Your task to perform on an android device: Go to Amazon Image 0: 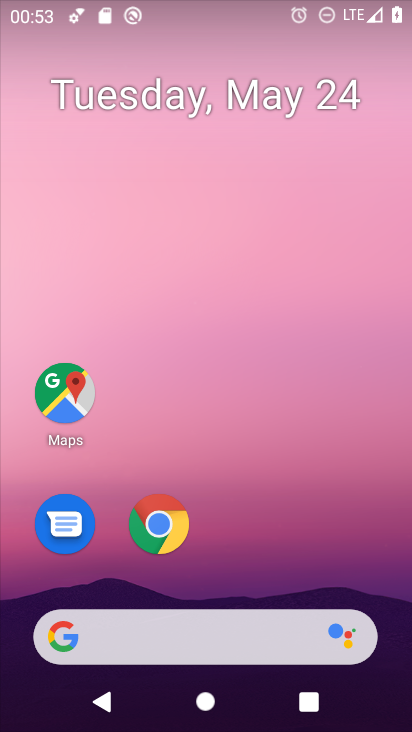
Step 0: click (136, 513)
Your task to perform on an android device: Go to Amazon Image 1: 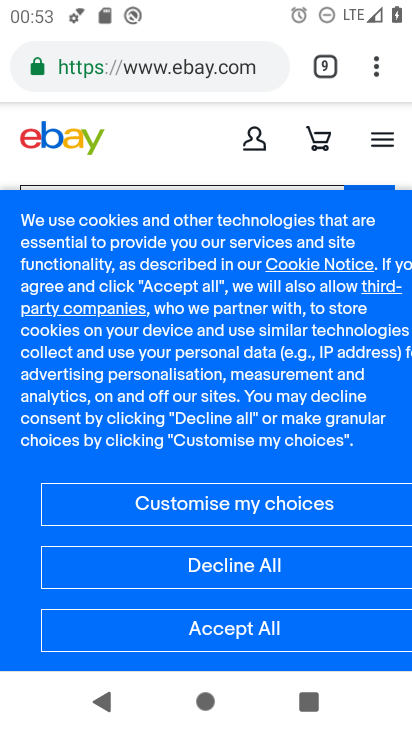
Step 1: click (328, 68)
Your task to perform on an android device: Go to Amazon Image 2: 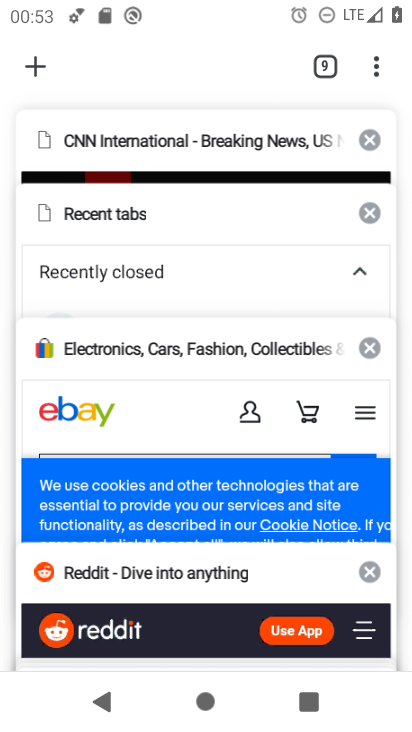
Step 2: drag from (127, 266) to (127, 538)
Your task to perform on an android device: Go to Amazon Image 3: 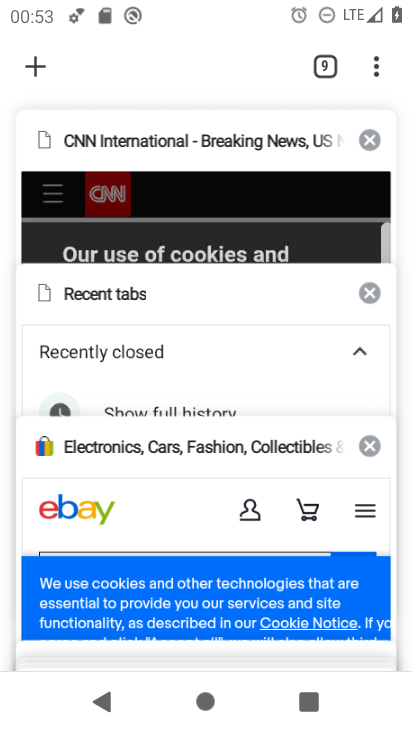
Step 3: drag from (95, 208) to (96, 515)
Your task to perform on an android device: Go to Amazon Image 4: 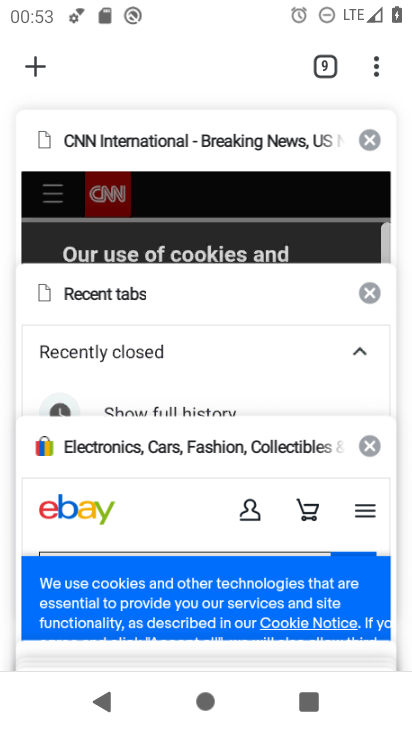
Step 4: click (33, 46)
Your task to perform on an android device: Go to Amazon Image 5: 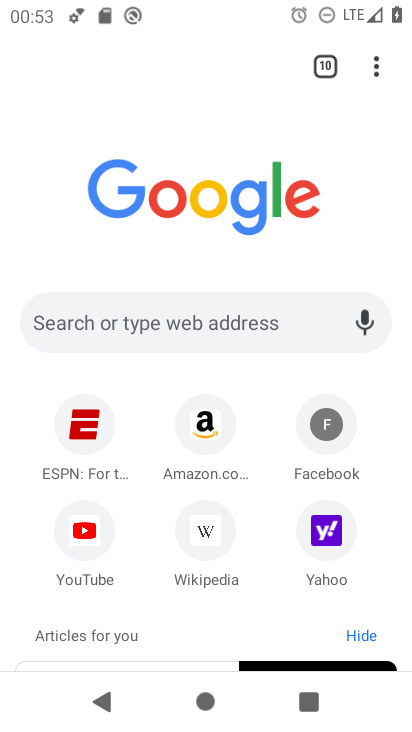
Step 5: click (215, 425)
Your task to perform on an android device: Go to Amazon Image 6: 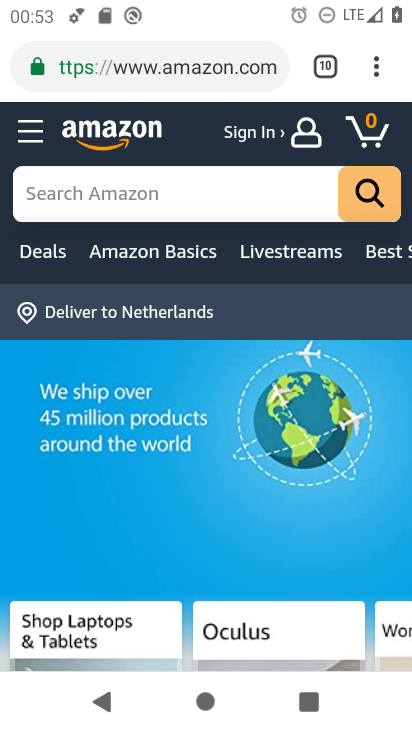
Step 6: task complete